Your task to perform on an android device: turn off notifications settings in the gmail app Image 0: 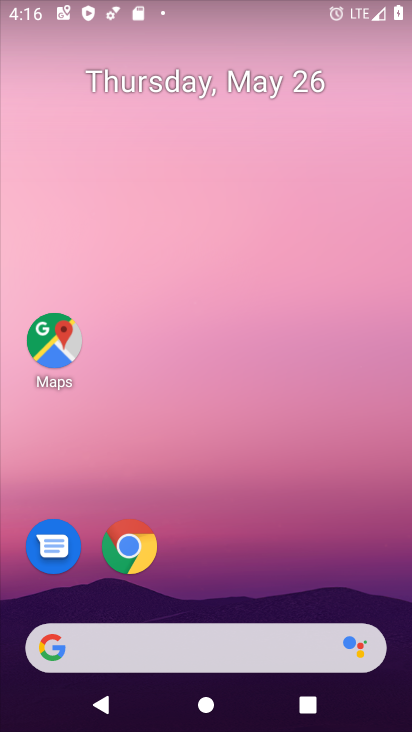
Step 0: drag from (295, 582) to (296, 120)
Your task to perform on an android device: turn off notifications settings in the gmail app Image 1: 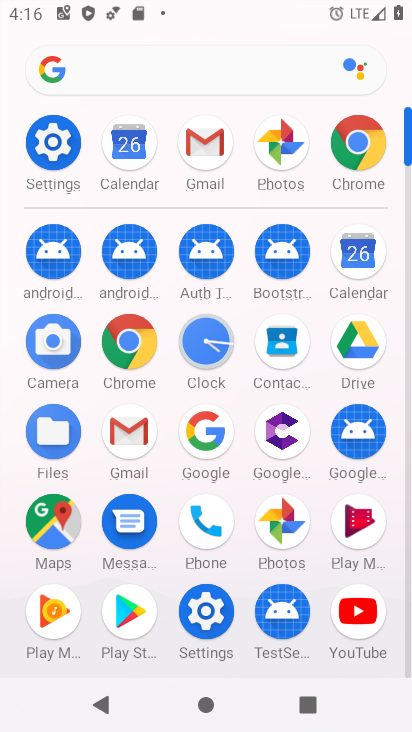
Step 1: click (208, 149)
Your task to perform on an android device: turn off notifications settings in the gmail app Image 2: 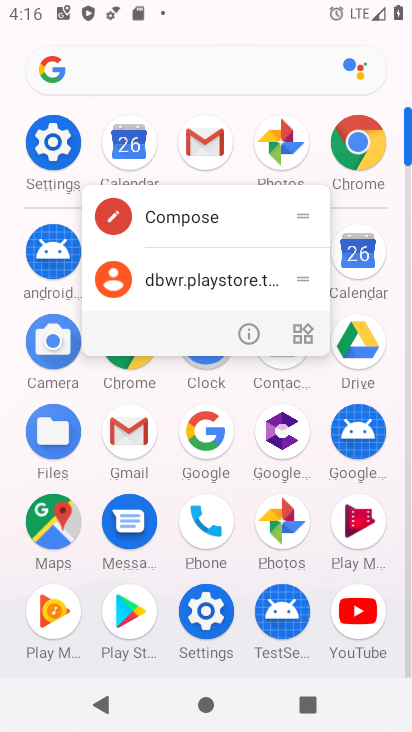
Step 2: click (246, 340)
Your task to perform on an android device: turn off notifications settings in the gmail app Image 3: 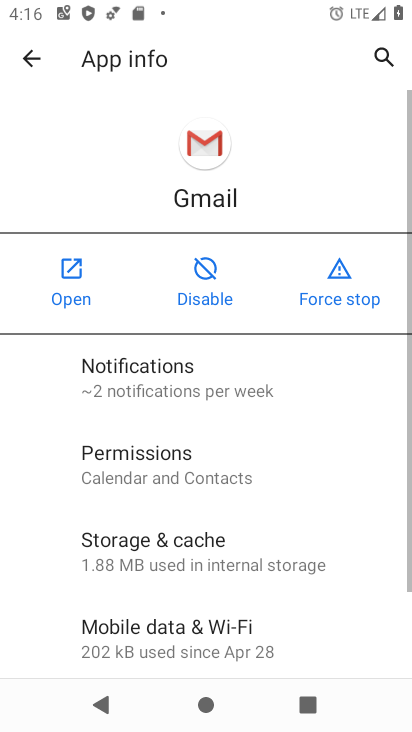
Step 3: click (158, 370)
Your task to perform on an android device: turn off notifications settings in the gmail app Image 4: 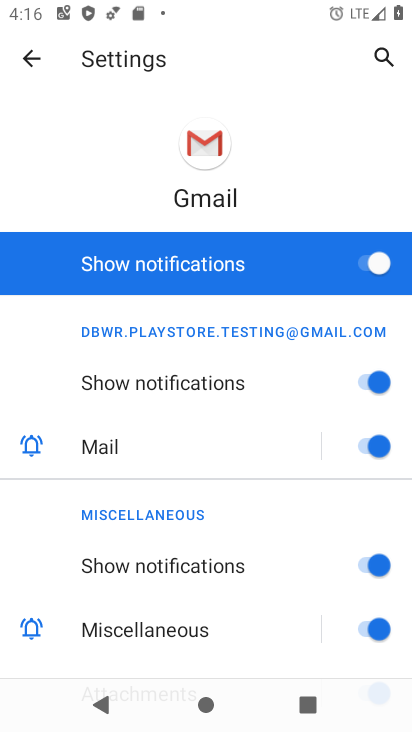
Step 4: click (378, 263)
Your task to perform on an android device: turn off notifications settings in the gmail app Image 5: 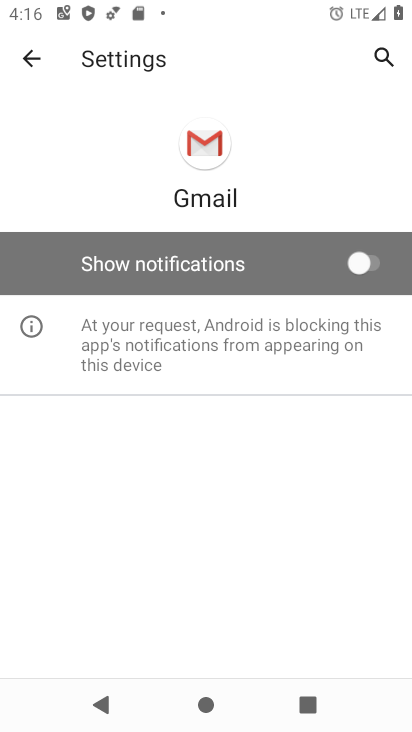
Step 5: task complete